Your task to perform on an android device: change alarm snooze length Image 0: 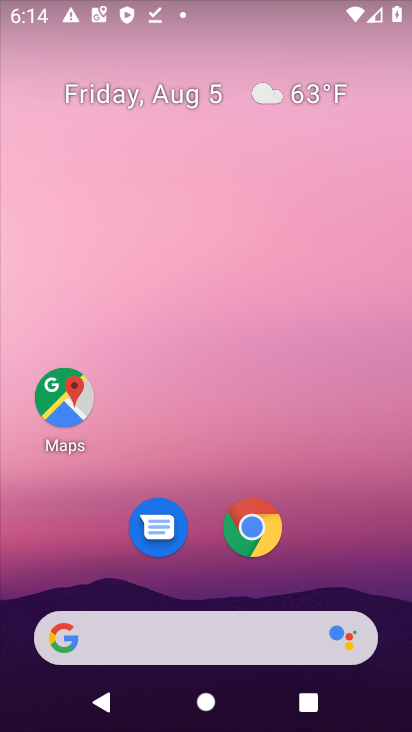
Step 0: drag from (198, 568) to (259, 219)
Your task to perform on an android device: change alarm snooze length Image 1: 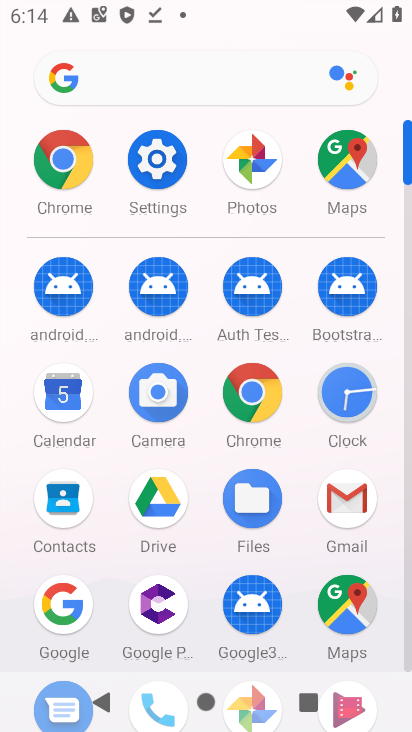
Step 1: click (339, 402)
Your task to perform on an android device: change alarm snooze length Image 2: 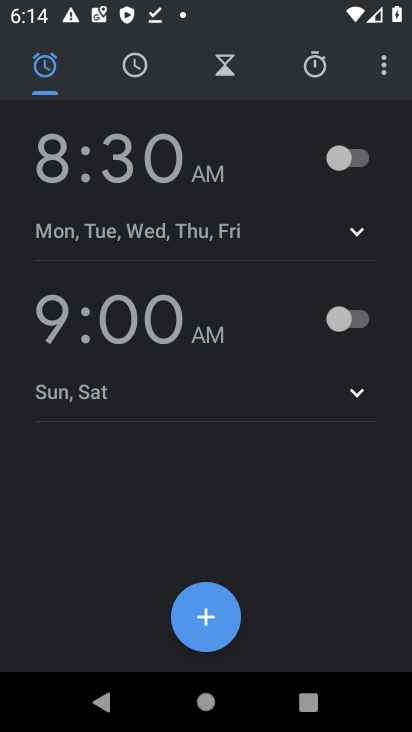
Step 2: click (392, 77)
Your task to perform on an android device: change alarm snooze length Image 3: 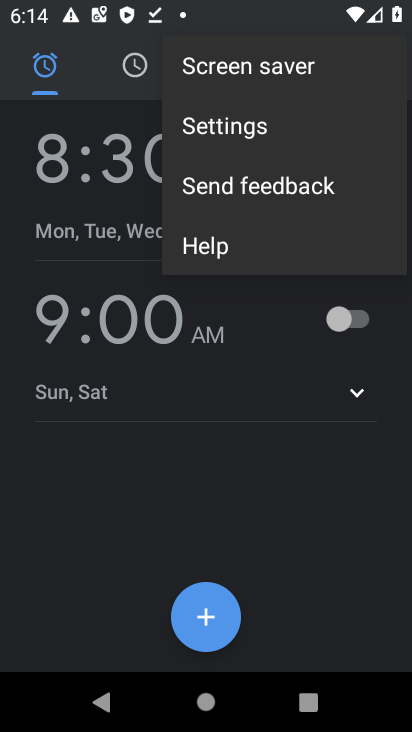
Step 3: click (279, 140)
Your task to perform on an android device: change alarm snooze length Image 4: 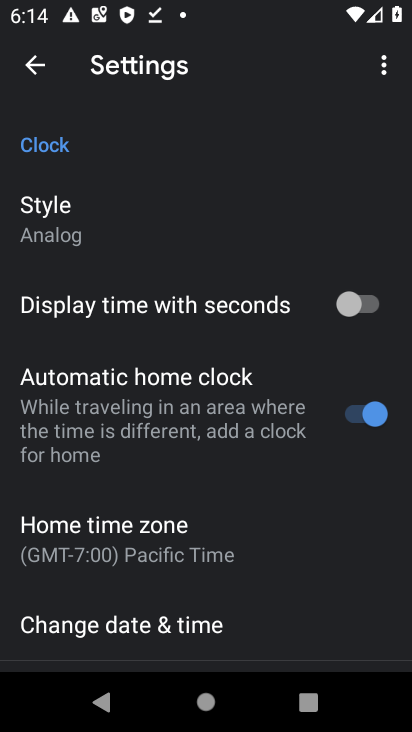
Step 4: drag from (207, 508) to (221, 85)
Your task to perform on an android device: change alarm snooze length Image 5: 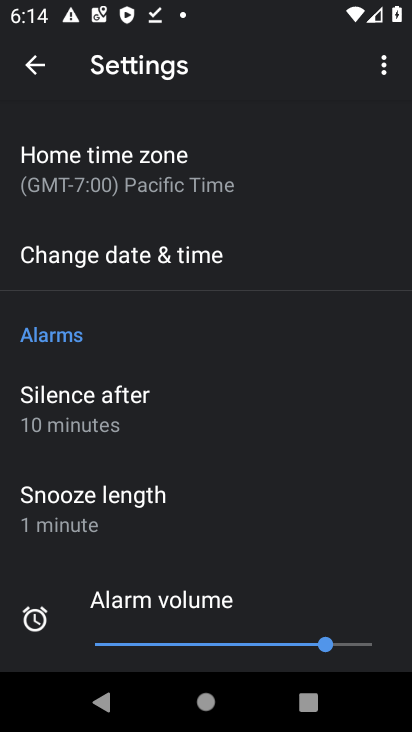
Step 5: click (113, 514)
Your task to perform on an android device: change alarm snooze length Image 6: 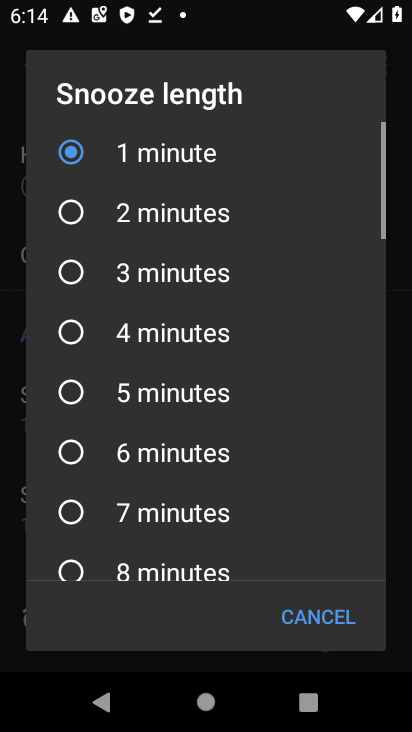
Step 6: drag from (146, 204) to (229, 515)
Your task to perform on an android device: change alarm snooze length Image 7: 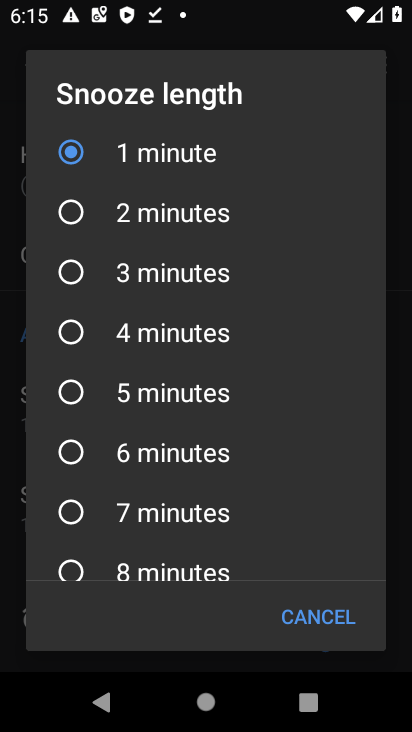
Step 7: click (122, 229)
Your task to perform on an android device: change alarm snooze length Image 8: 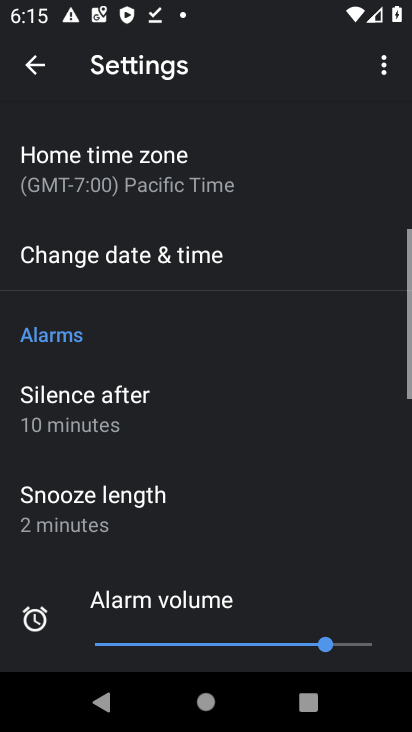
Step 8: task complete